Your task to perform on an android device: Do I have any events this weekend? Image 0: 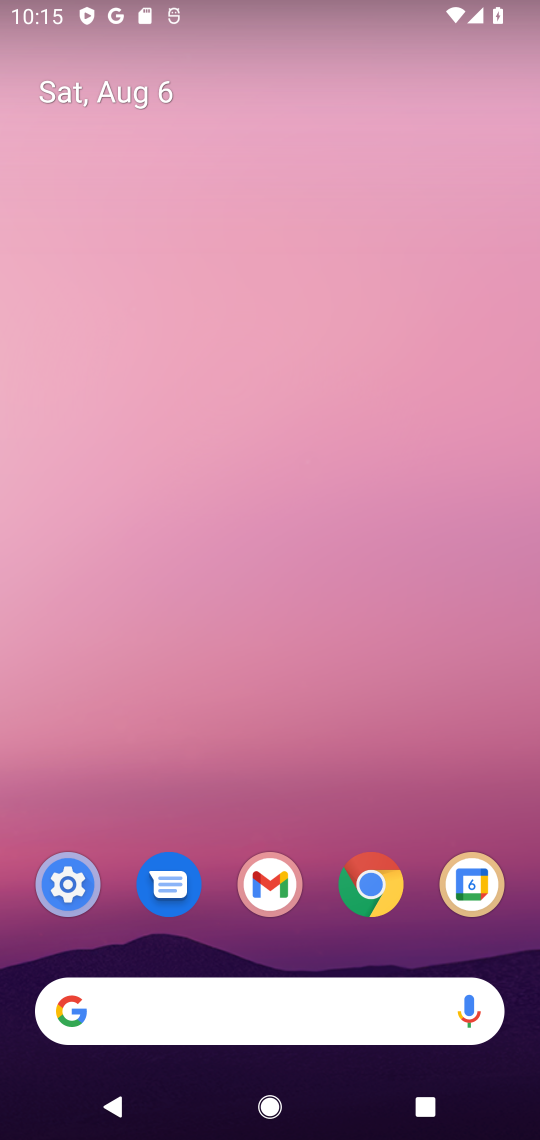
Step 0: click (470, 882)
Your task to perform on an android device: Do I have any events this weekend? Image 1: 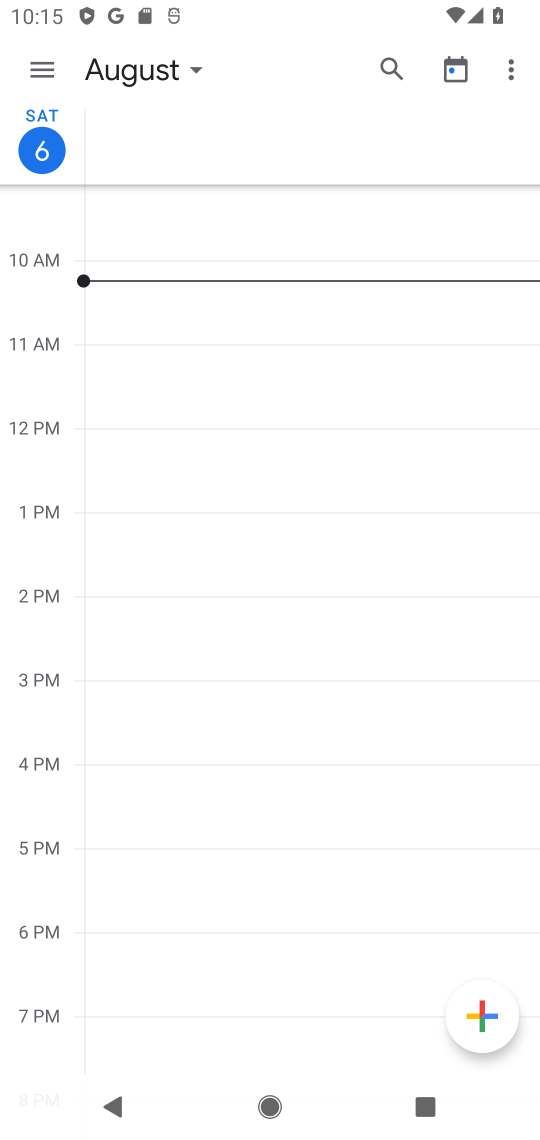
Step 1: click (48, 72)
Your task to perform on an android device: Do I have any events this weekend? Image 2: 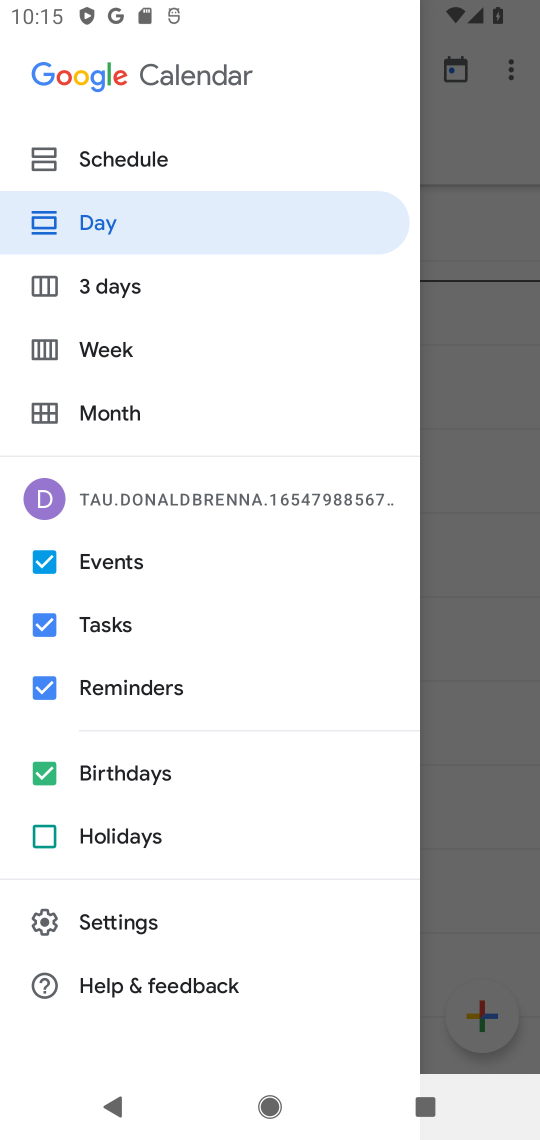
Step 2: click (114, 356)
Your task to perform on an android device: Do I have any events this weekend? Image 3: 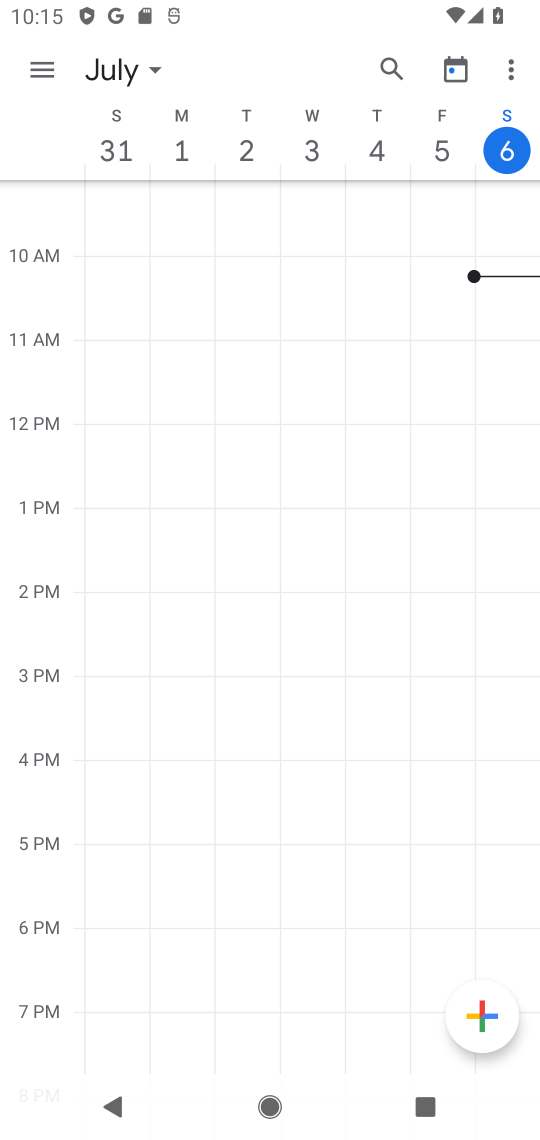
Step 3: task complete